Your task to perform on an android device: turn off picture-in-picture Image 0: 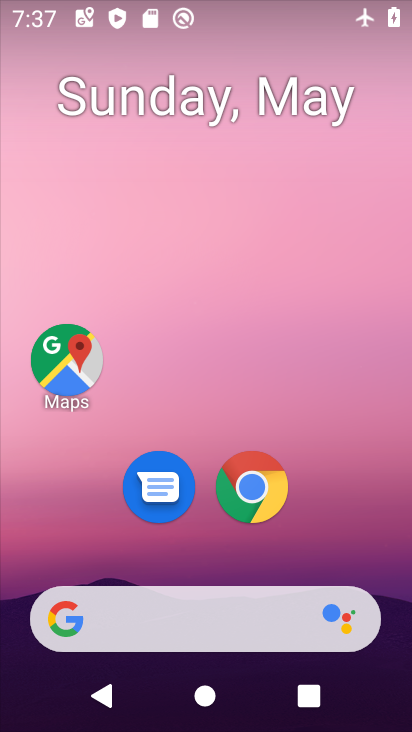
Step 0: drag from (378, 568) to (372, 177)
Your task to perform on an android device: turn off picture-in-picture Image 1: 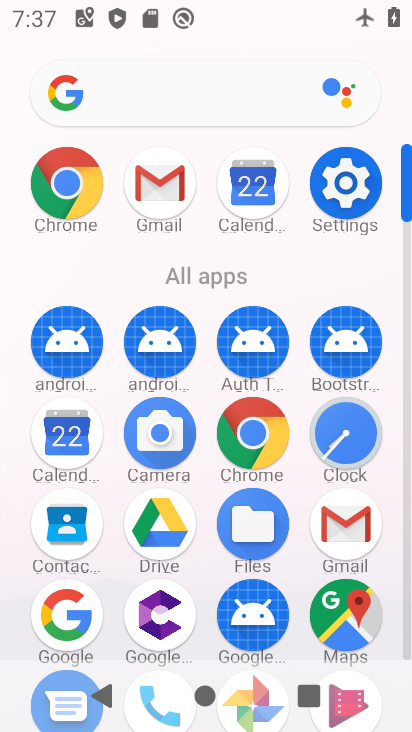
Step 1: click (344, 201)
Your task to perform on an android device: turn off picture-in-picture Image 2: 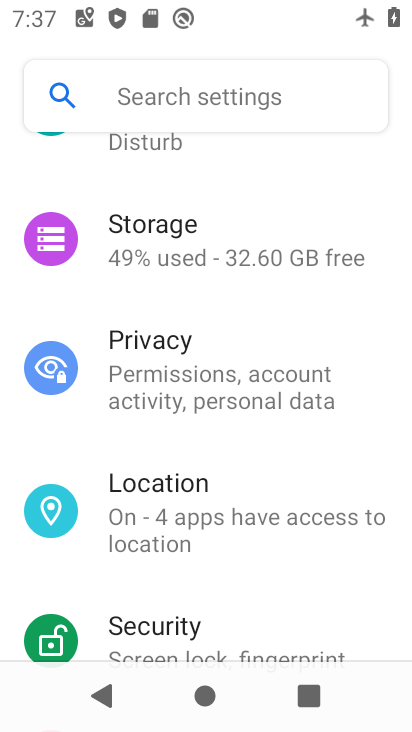
Step 2: drag from (385, 595) to (372, 515)
Your task to perform on an android device: turn off picture-in-picture Image 3: 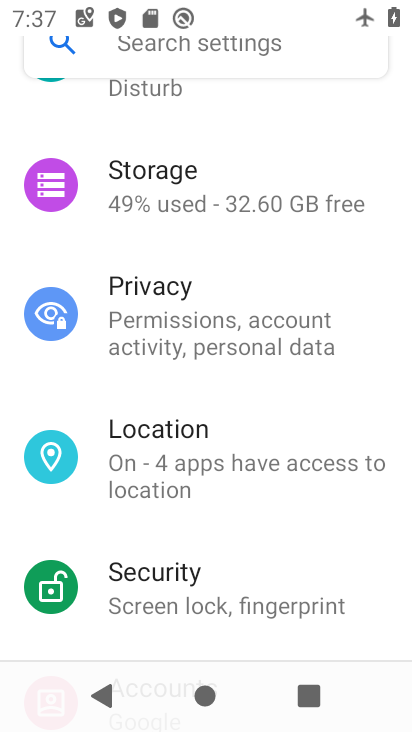
Step 3: drag from (366, 617) to (370, 528)
Your task to perform on an android device: turn off picture-in-picture Image 4: 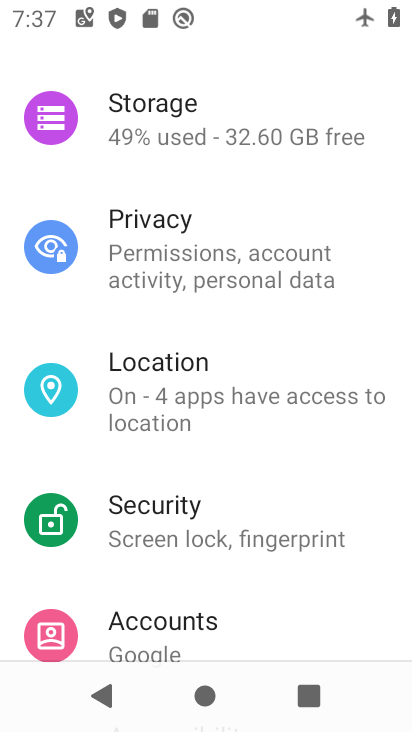
Step 4: drag from (374, 606) to (373, 536)
Your task to perform on an android device: turn off picture-in-picture Image 5: 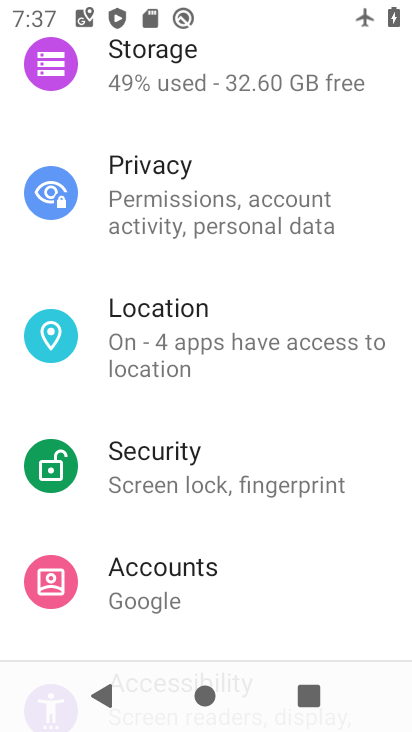
Step 5: drag from (368, 617) to (364, 538)
Your task to perform on an android device: turn off picture-in-picture Image 6: 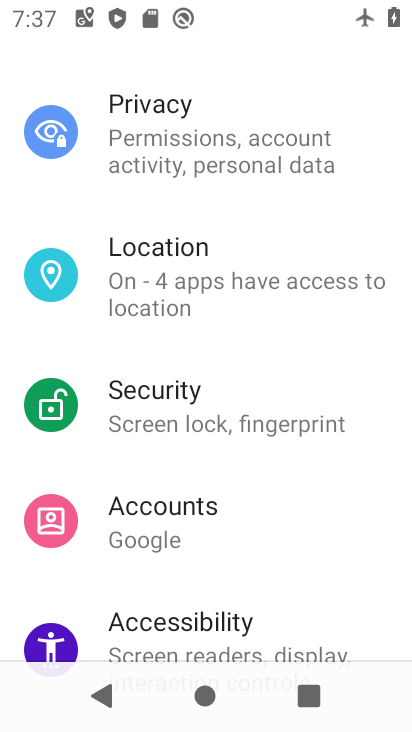
Step 6: drag from (359, 615) to (363, 542)
Your task to perform on an android device: turn off picture-in-picture Image 7: 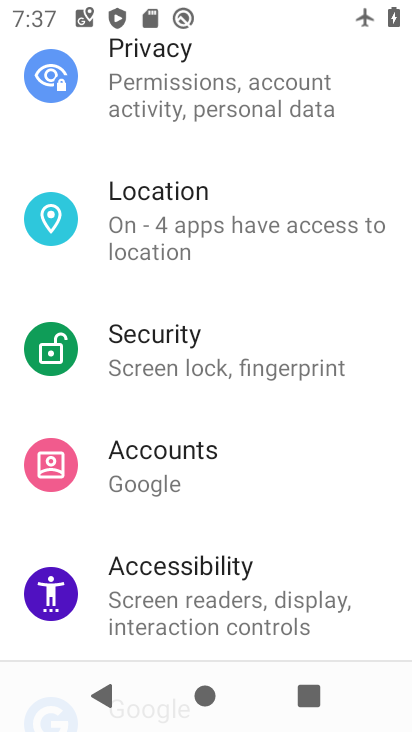
Step 7: drag from (370, 619) to (377, 540)
Your task to perform on an android device: turn off picture-in-picture Image 8: 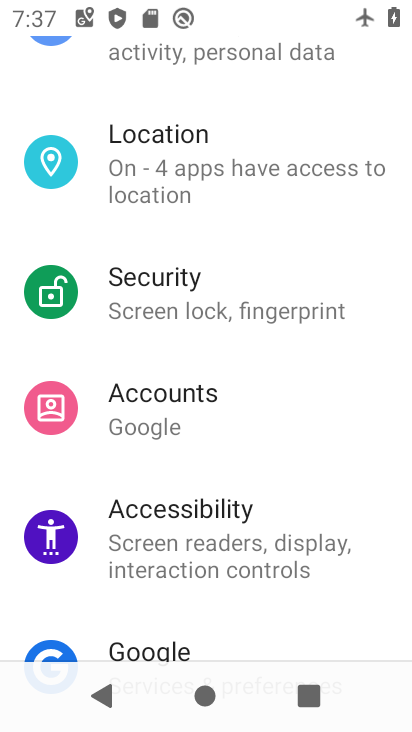
Step 8: drag from (377, 606) to (374, 539)
Your task to perform on an android device: turn off picture-in-picture Image 9: 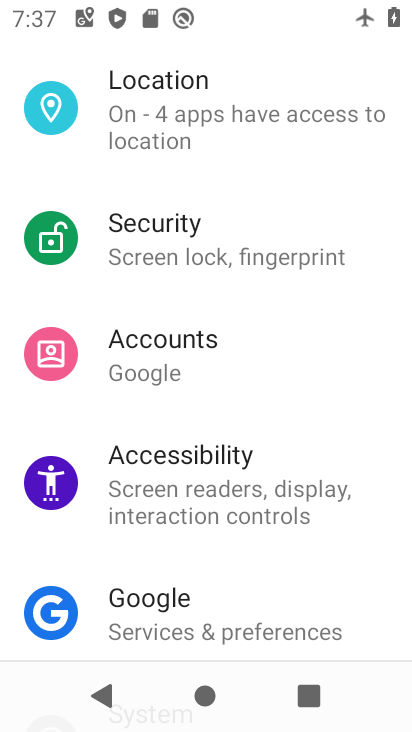
Step 9: drag from (373, 593) to (371, 541)
Your task to perform on an android device: turn off picture-in-picture Image 10: 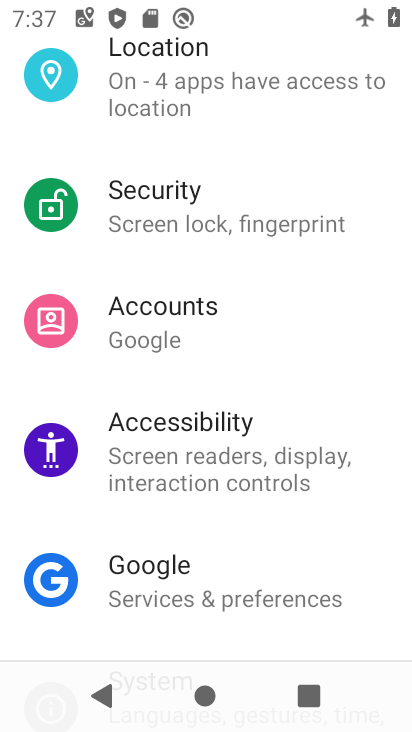
Step 10: drag from (375, 626) to (379, 561)
Your task to perform on an android device: turn off picture-in-picture Image 11: 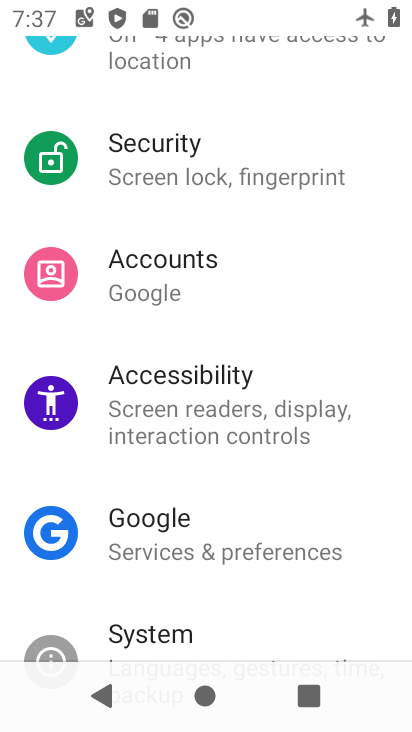
Step 11: drag from (371, 620) to (371, 519)
Your task to perform on an android device: turn off picture-in-picture Image 12: 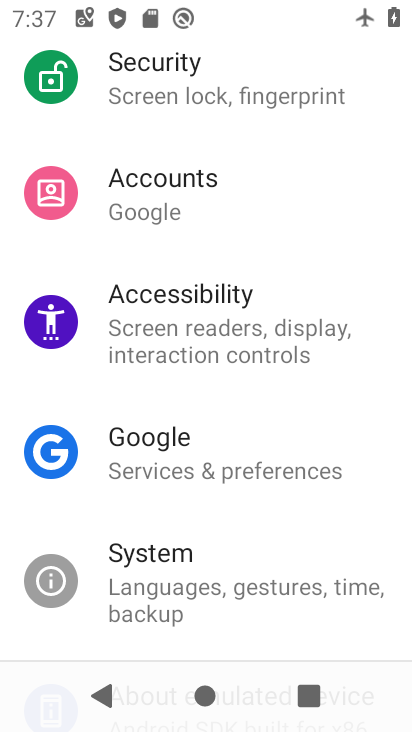
Step 12: drag from (368, 631) to (368, 540)
Your task to perform on an android device: turn off picture-in-picture Image 13: 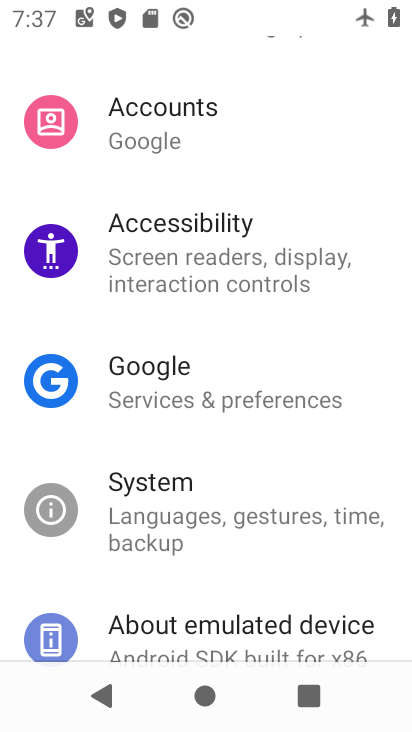
Step 13: drag from (371, 642) to (376, 549)
Your task to perform on an android device: turn off picture-in-picture Image 14: 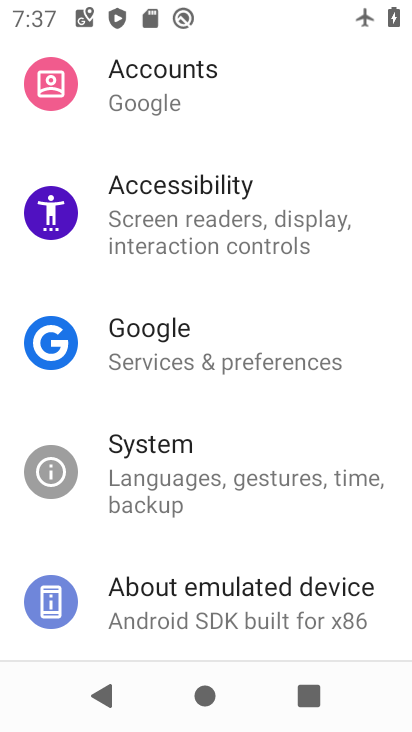
Step 14: drag from (380, 638) to (379, 544)
Your task to perform on an android device: turn off picture-in-picture Image 15: 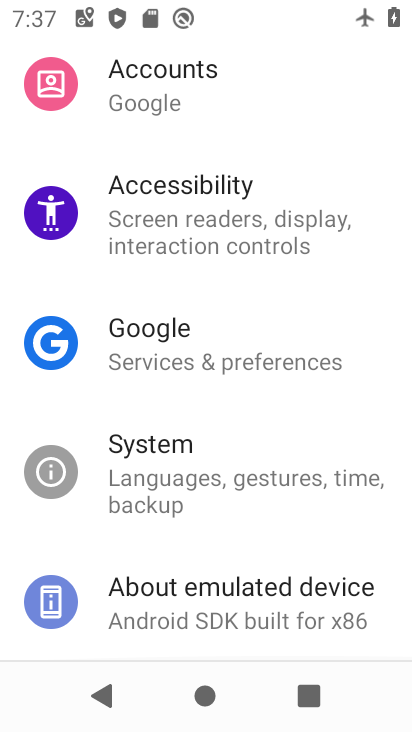
Step 15: drag from (379, 508) to (376, 584)
Your task to perform on an android device: turn off picture-in-picture Image 16: 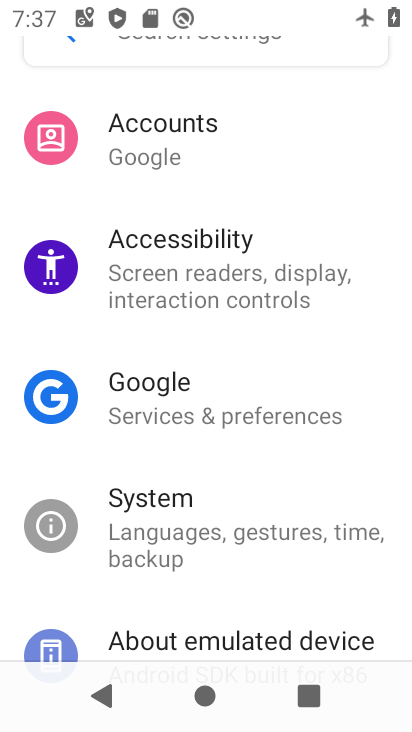
Step 16: drag from (372, 483) to (373, 573)
Your task to perform on an android device: turn off picture-in-picture Image 17: 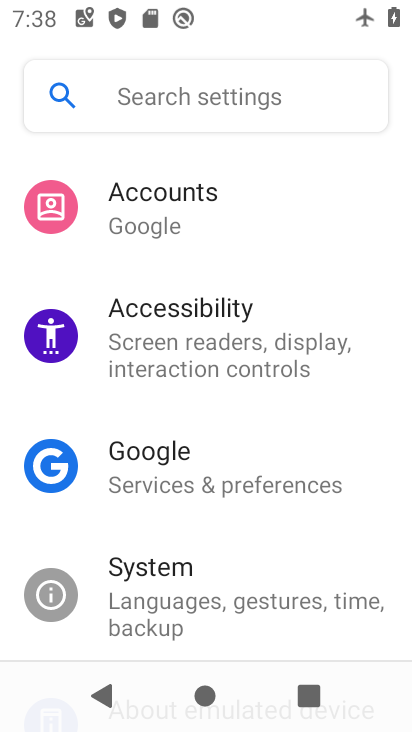
Step 17: drag from (377, 460) to (372, 553)
Your task to perform on an android device: turn off picture-in-picture Image 18: 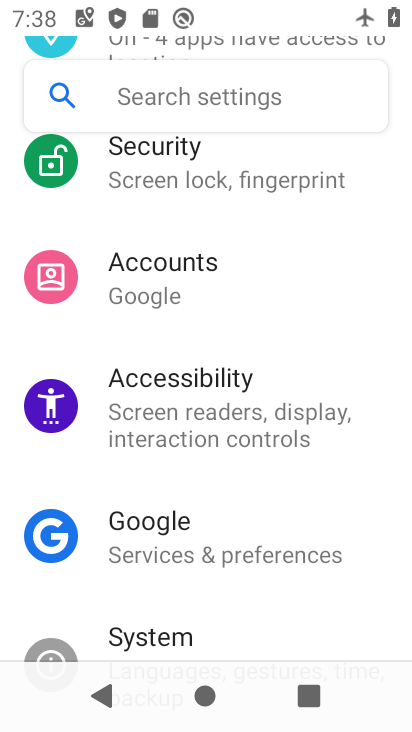
Step 18: drag from (374, 478) to (373, 550)
Your task to perform on an android device: turn off picture-in-picture Image 19: 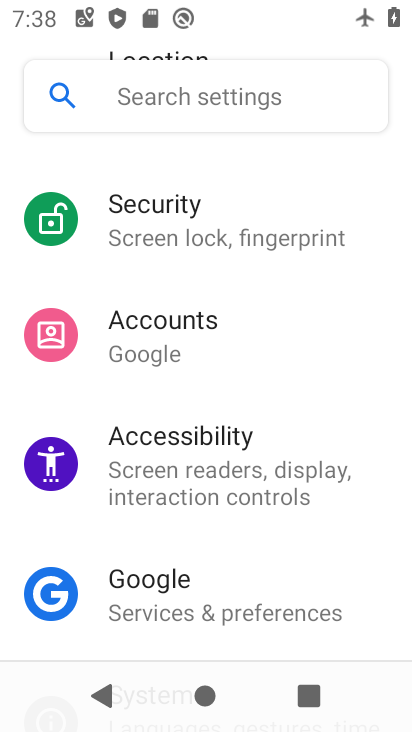
Step 19: drag from (377, 472) to (377, 553)
Your task to perform on an android device: turn off picture-in-picture Image 20: 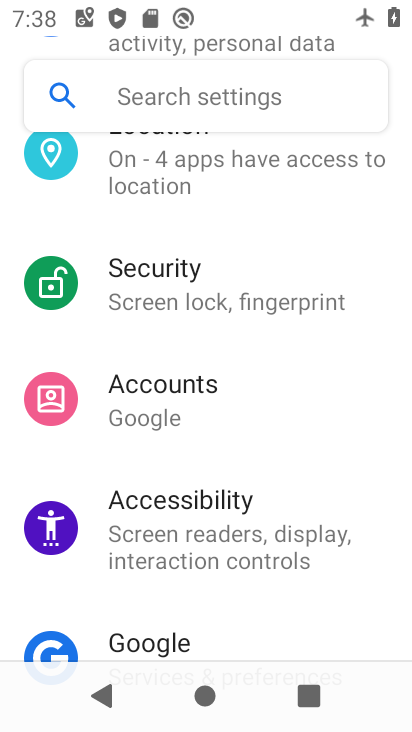
Step 20: drag from (374, 446) to (369, 538)
Your task to perform on an android device: turn off picture-in-picture Image 21: 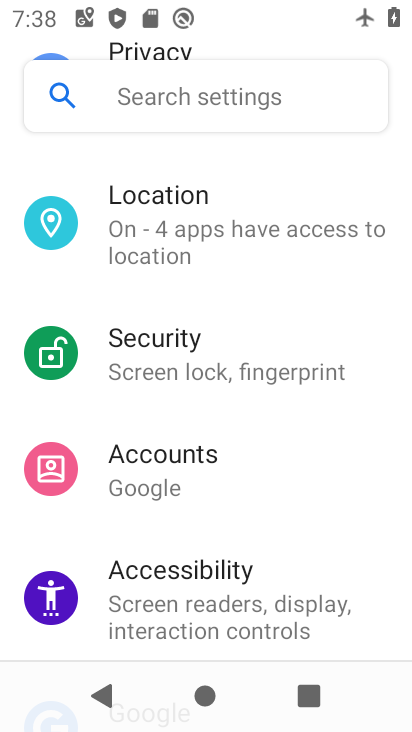
Step 21: drag from (367, 440) to (367, 511)
Your task to perform on an android device: turn off picture-in-picture Image 22: 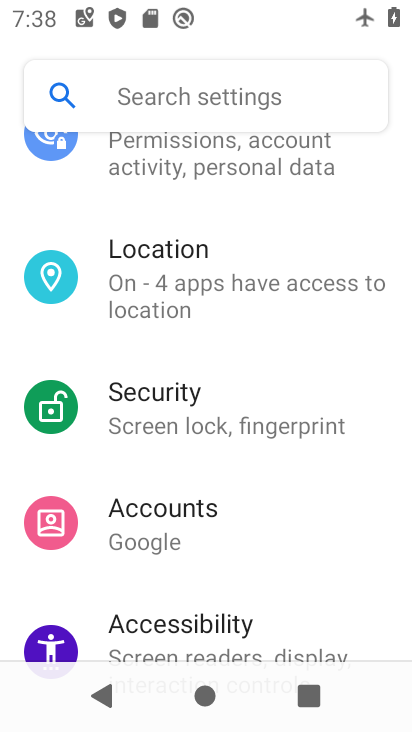
Step 22: drag from (368, 431) to (368, 494)
Your task to perform on an android device: turn off picture-in-picture Image 23: 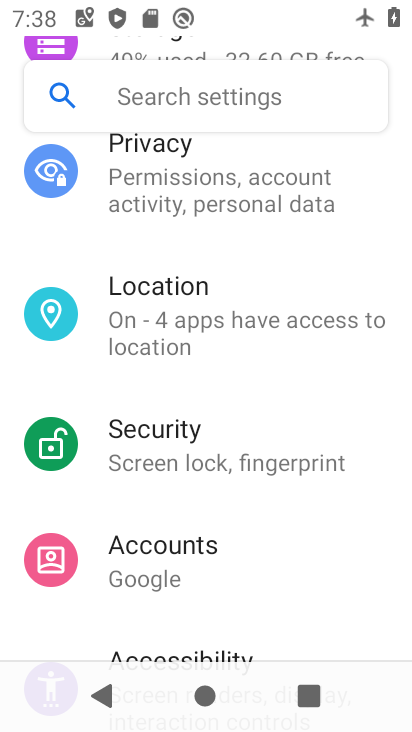
Step 23: drag from (384, 414) to (373, 524)
Your task to perform on an android device: turn off picture-in-picture Image 24: 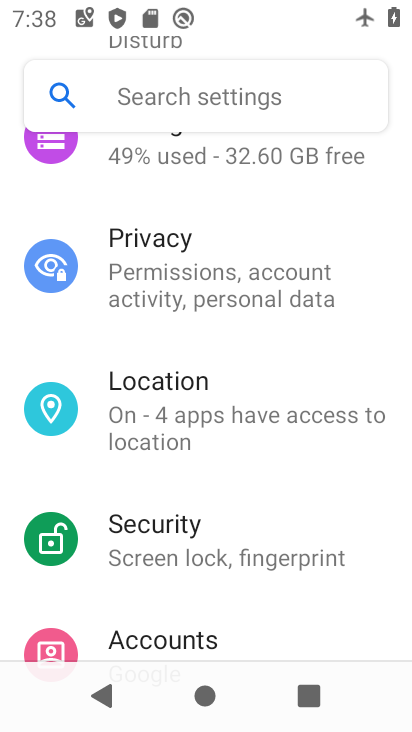
Step 24: drag from (378, 443) to (379, 536)
Your task to perform on an android device: turn off picture-in-picture Image 25: 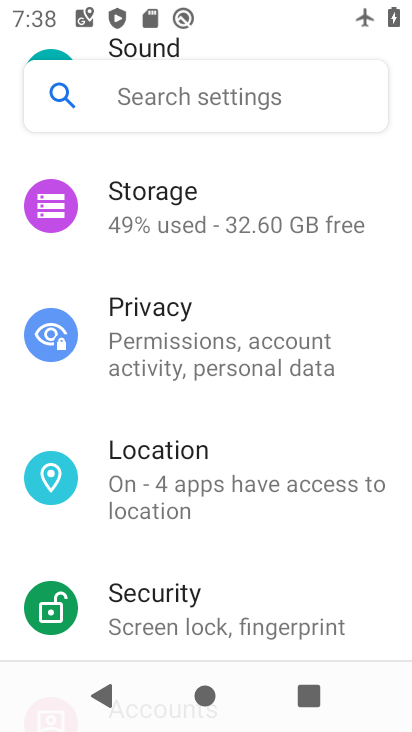
Step 25: drag from (363, 379) to (359, 523)
Your task to perform on an android device: turn off picture-in-picture Image 26: 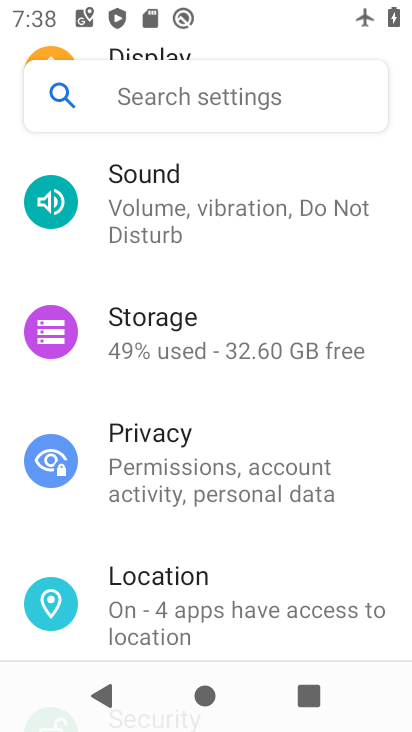
Step 26: drag from (363, 416) to (366, 484)
Your task to perform on an android device: turn off picture-in-picture Image 27: 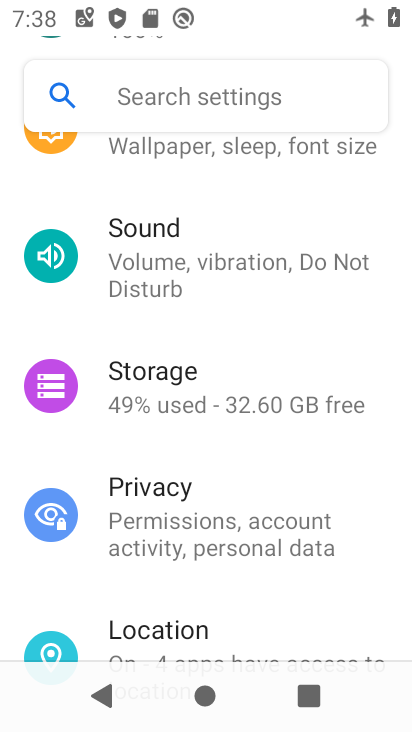
Step 27: drag from (371, 345) to (371, 454)
Your task to perform on an android device: turn off picture-in-picture Image 28: 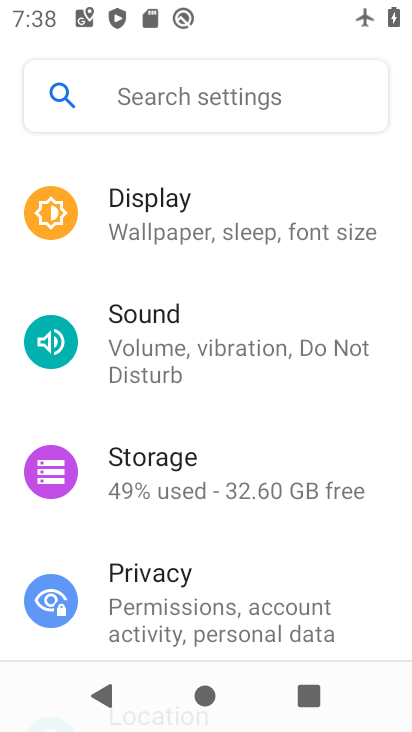
Step 28: drag from (386, 306) to (386, 400)
Your task to perform on an android device: turn off picture-in-picture Image 29: 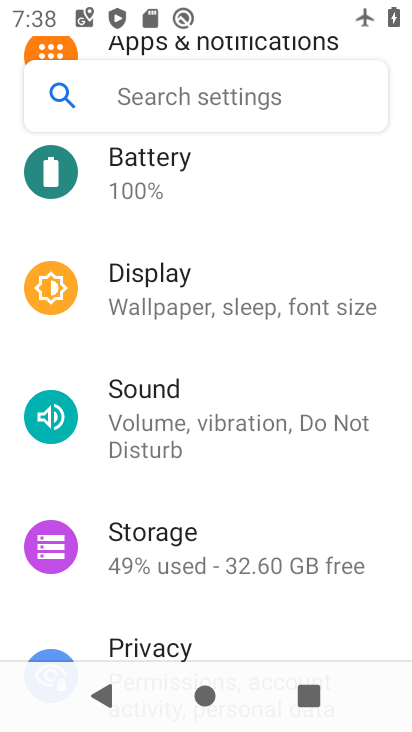
Step 29: drag from (370, 264) to (366, 384)
Your task to perform on an android device: turn off picture-in-picture Image 30: 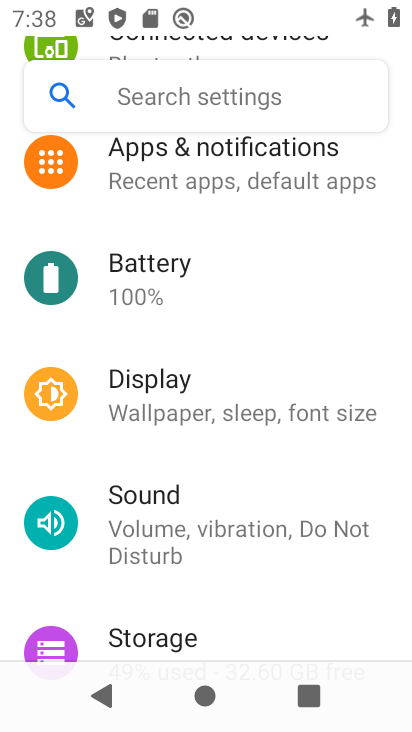
Step 30: drag from (340, 308) to (334, 429)
Your task to perform on an android device: turn off picture-in-picture Image 31: 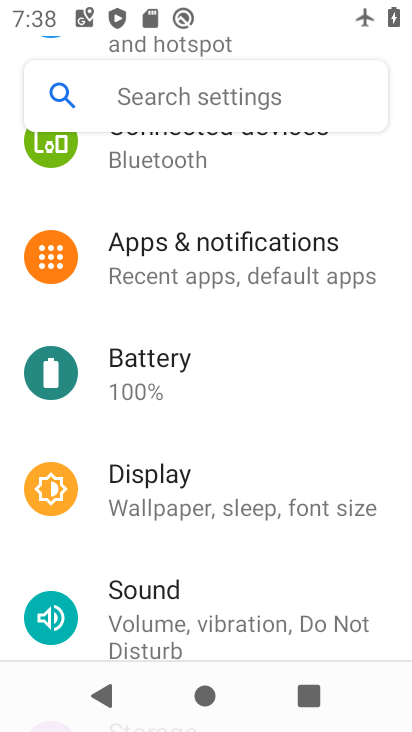
Step 31: drag from (351, 313) to (329, 444)
Your task to perform on an android device: turn off picture-in-picture Image 32: 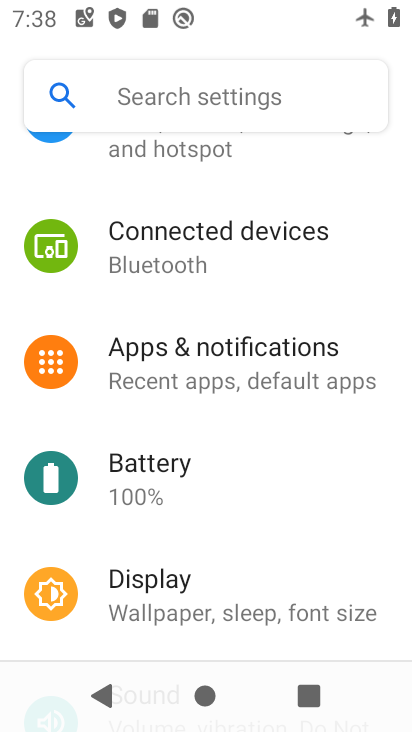
Step 32: drag from (343, 281) to (340, 452)
Your task to perform on an android device: turn off picture-in-picture Image 33: 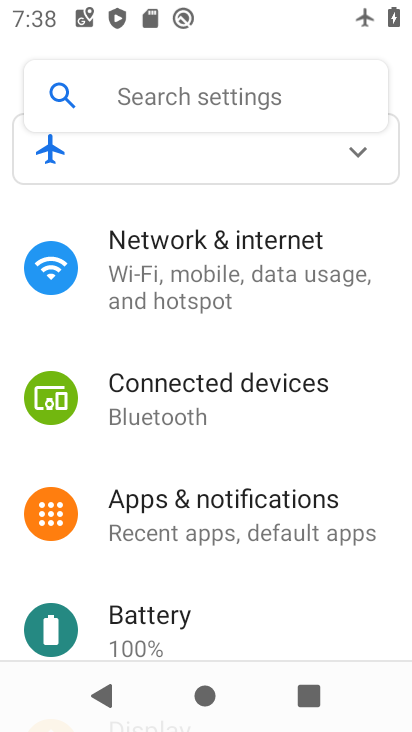
Step 33: click (266, 526)
Your task to perform on an android device: turn off picture-in-picture Image 34: 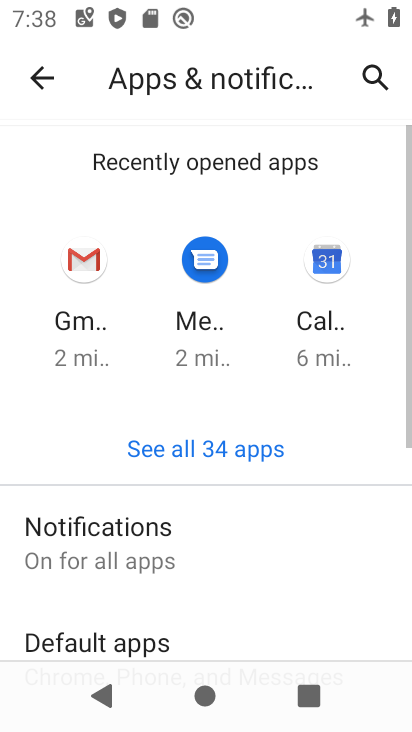
Step 34: drag from (295, 554) to (300, 452)
Your task to perform on an android device: turn off picture-in-picture Image 35: 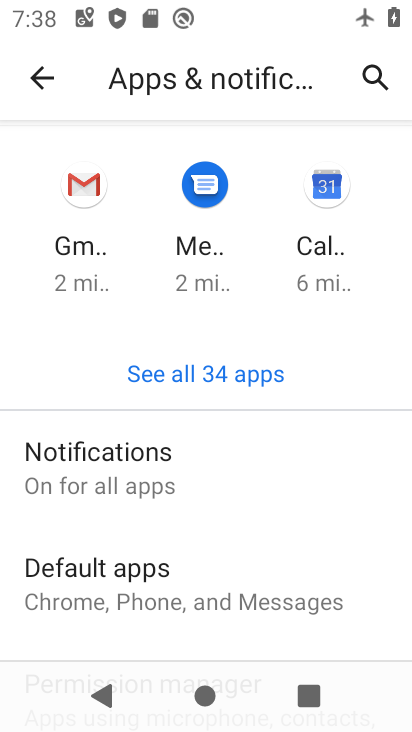
Step 35: drag from (299, 554) to (293, 427)
Your task to perform on an android device: turn off picture-in-picture Image 36: 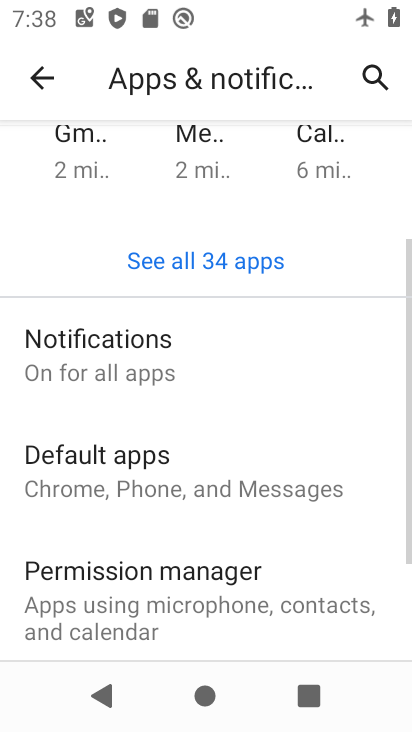
Step 36: drag from (277, 567) to (273, 446)
Your task to perform on an android device: turn off picture-in-picture Image 37: 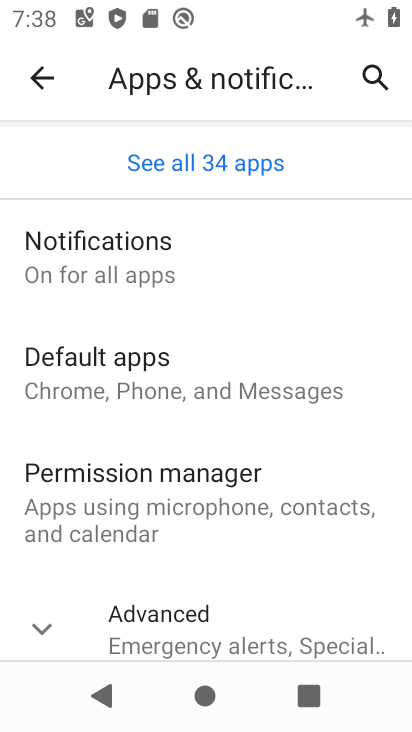
Step 37: drag from (275, 590) to (275, 480)
Your task to perform on an android device: turn off picture-in-picture Image 38: 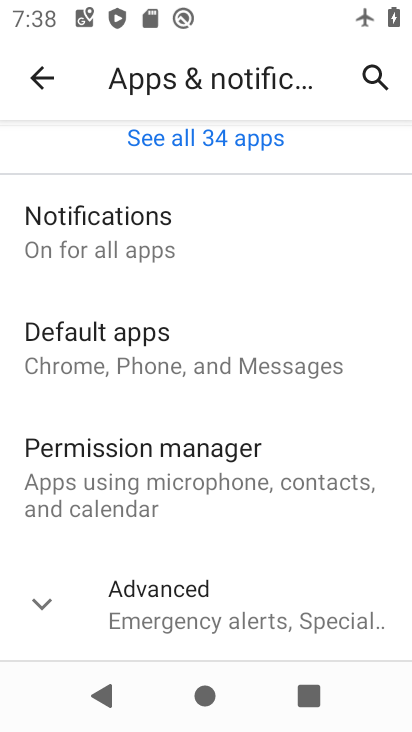
Step 38: click (258, 613)
Your task to perform on an android device: turn off picture-in-picture Image 39: 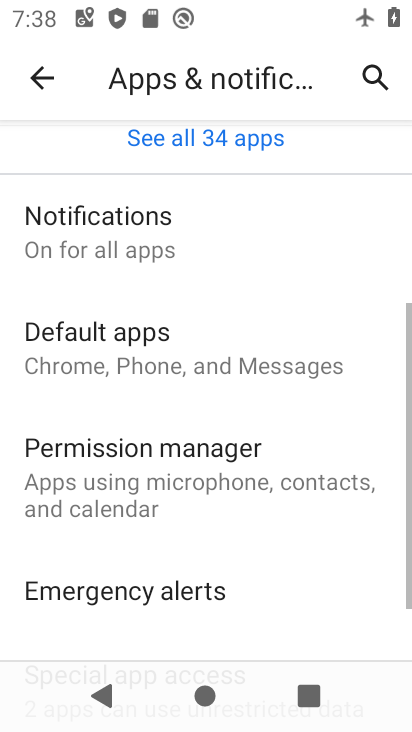
Step 39: drag from (283, 608) to (294, 430)
Your task to perform on an android device: turn off picture-in-picture Image 40: 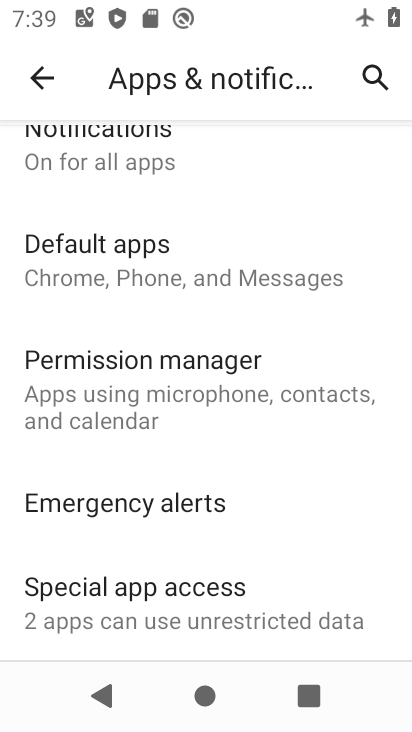
Step 40: click (274, 625)
Your task to perform on an android device: turn off picture-in-picture Image 41: 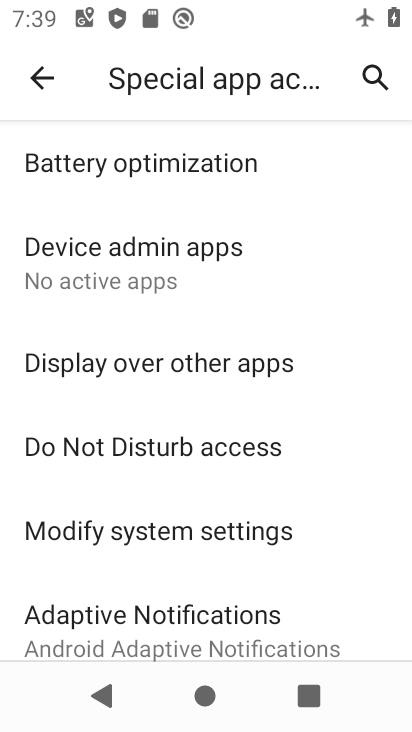
Step 41: drag from (328, 591) to (338, 460)
Your task to perform on an android device: turn off picture-in-picture Image 42: 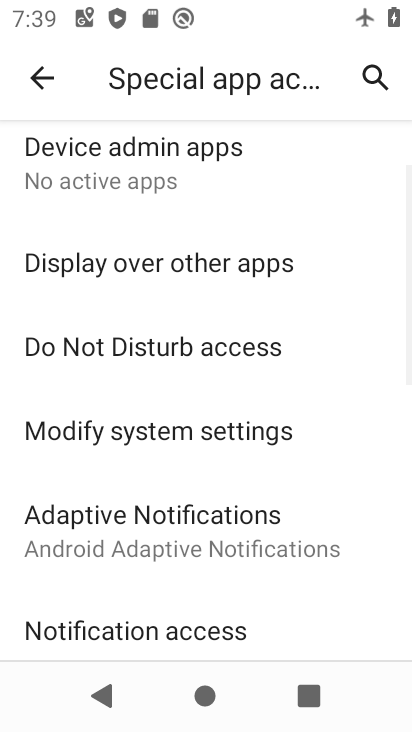
Step 42: drag from (348, 598) to (348, 488)
Your task to perform on an android device: turn off picture-in-picture Image 43: 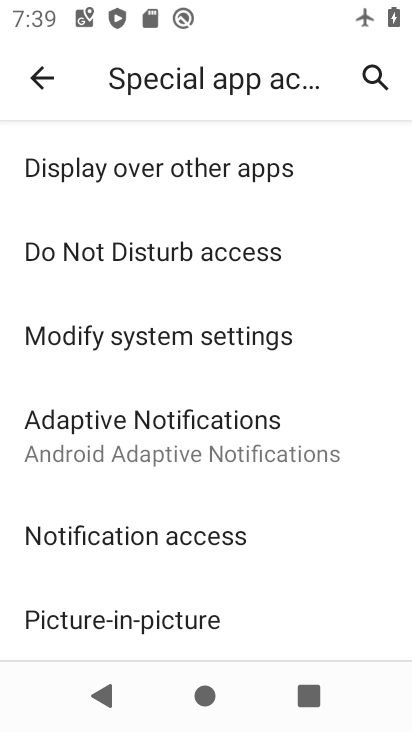
Step 43: drag from (328, 599) to (328, 502)
Your task to perform on an android device: turn off picture-in-picture Image 44: 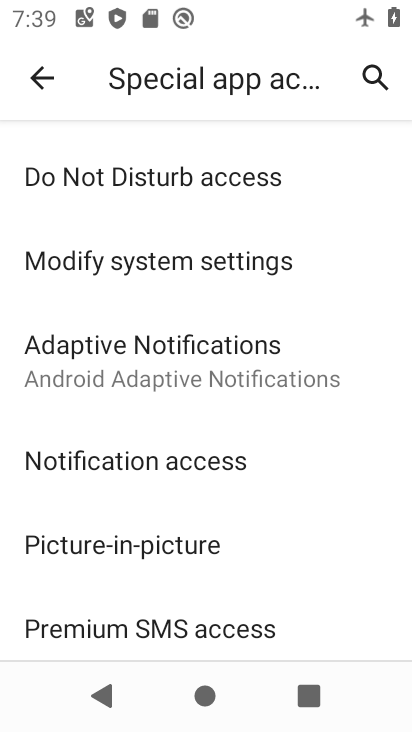
Step 44: click (206, 569)
Your task to perform on an android device: turn off picture-in-picture Image 45: 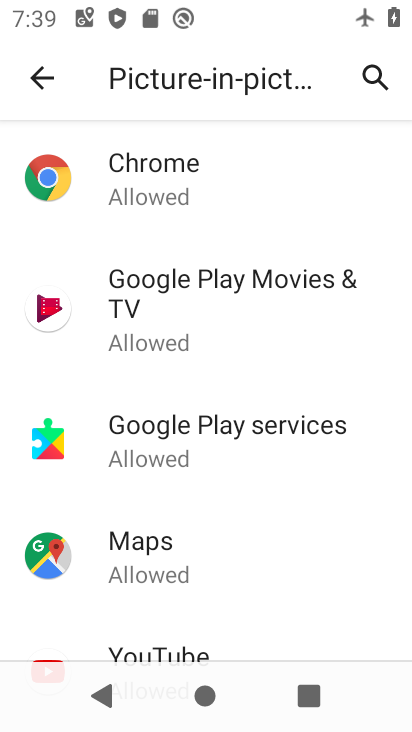
Step 45: task complete